Your task to perform on an android device: change alarm snooze length Image 0: 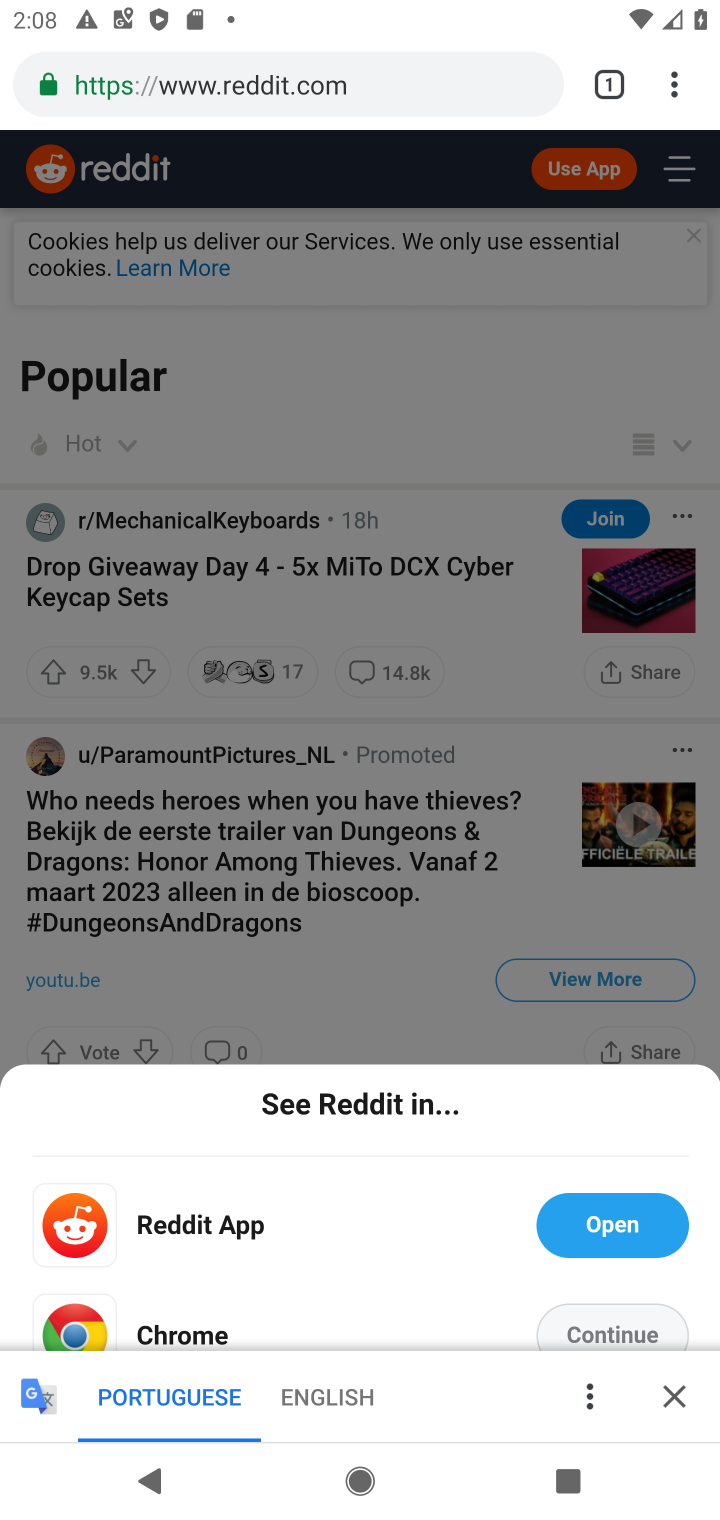
Step 0: press home button
Your task to perform on an android device: change alarm snooze length Image 1: 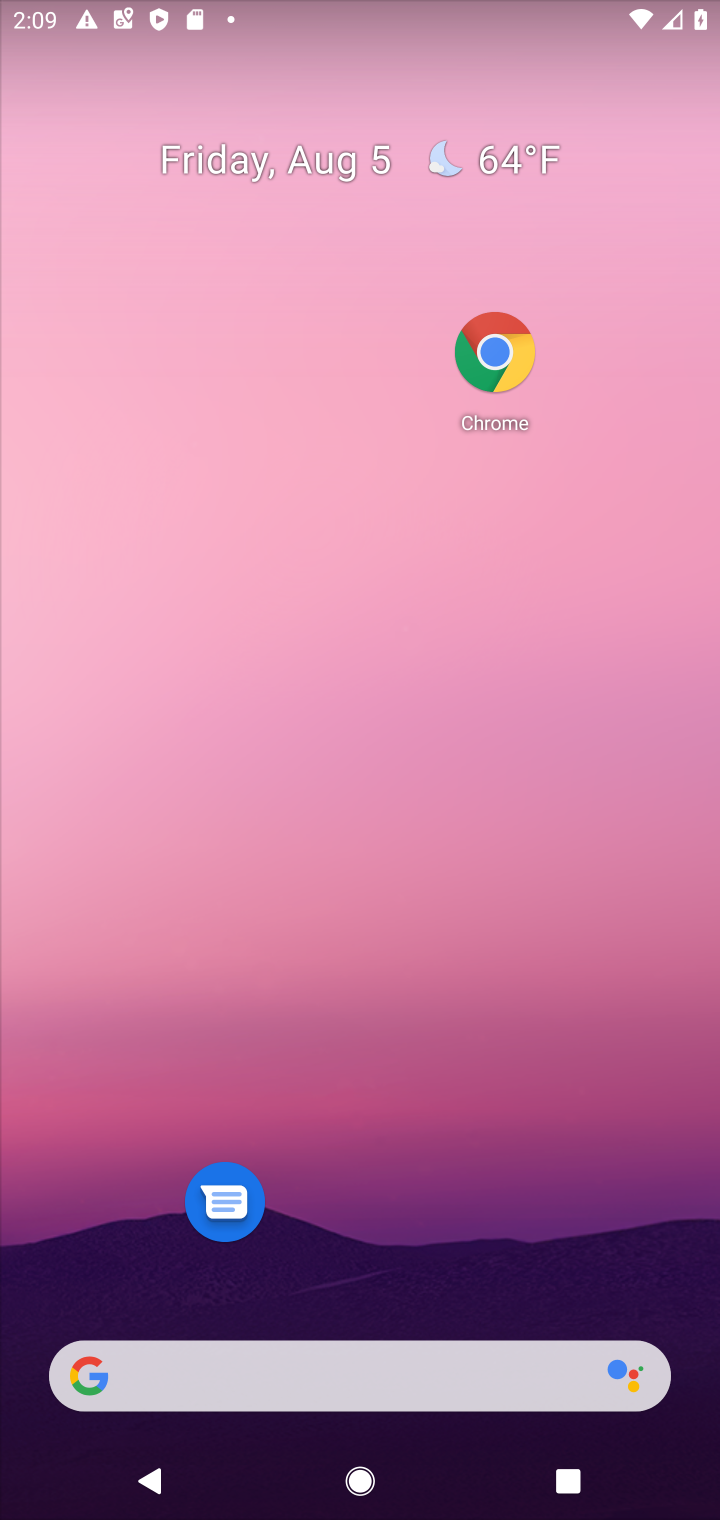
Step 1: drag from (554, 1241) to (558, 68)
Your task to perform on an android device: change alarm snooze length Image 2: 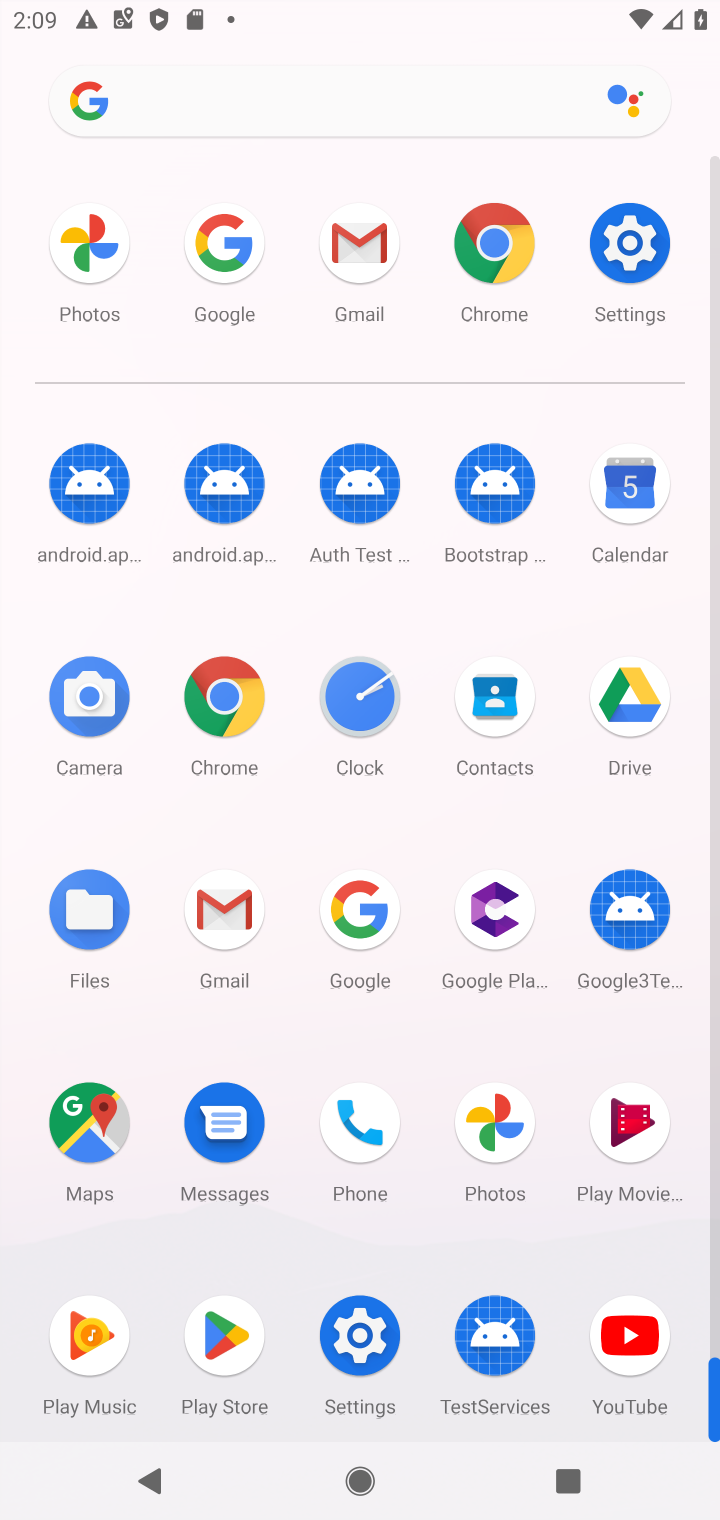
Step 2: click (364, 690)
Your task to perform on an android device: change alarm snooze length Image 3: 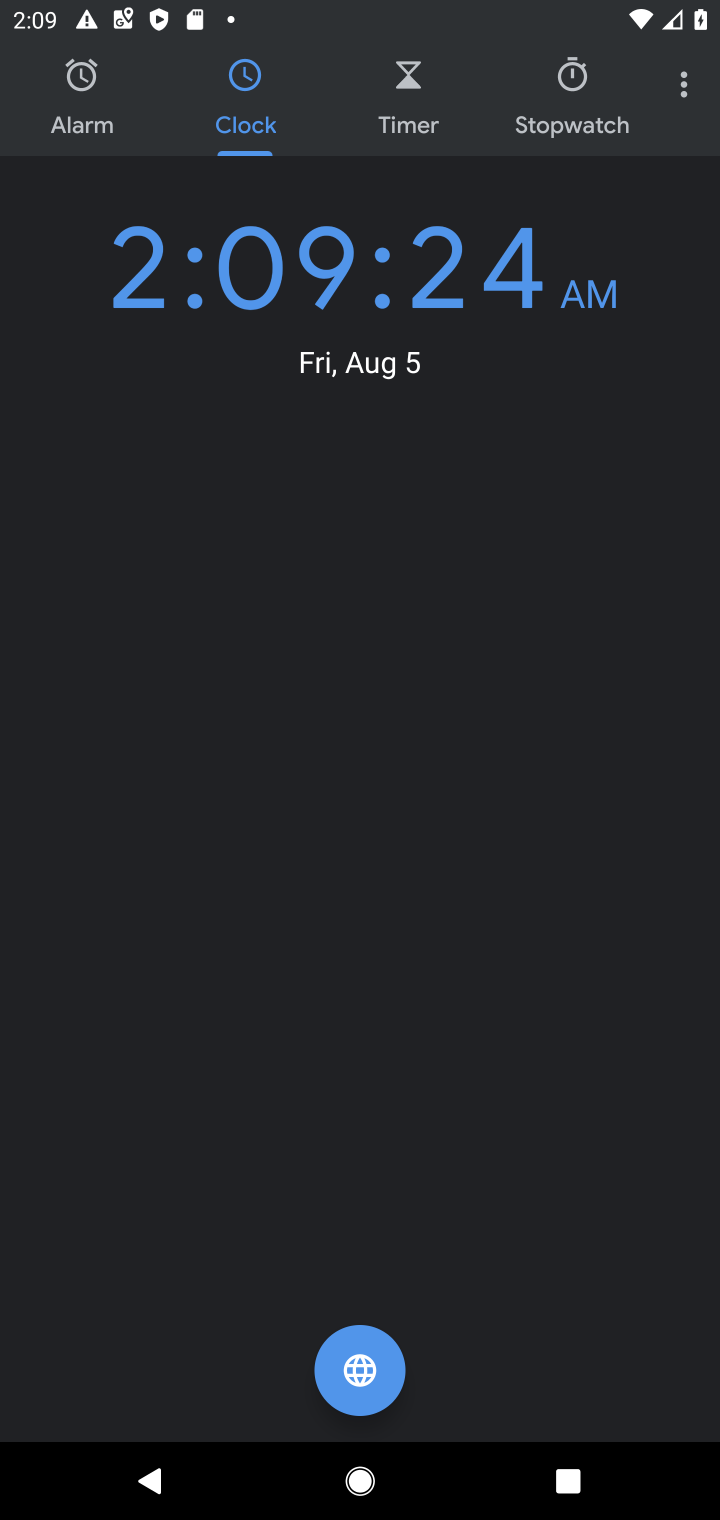
Step 3: click (679, 71)
Your task to perform on an android device: change alarm snooze length Image 4: 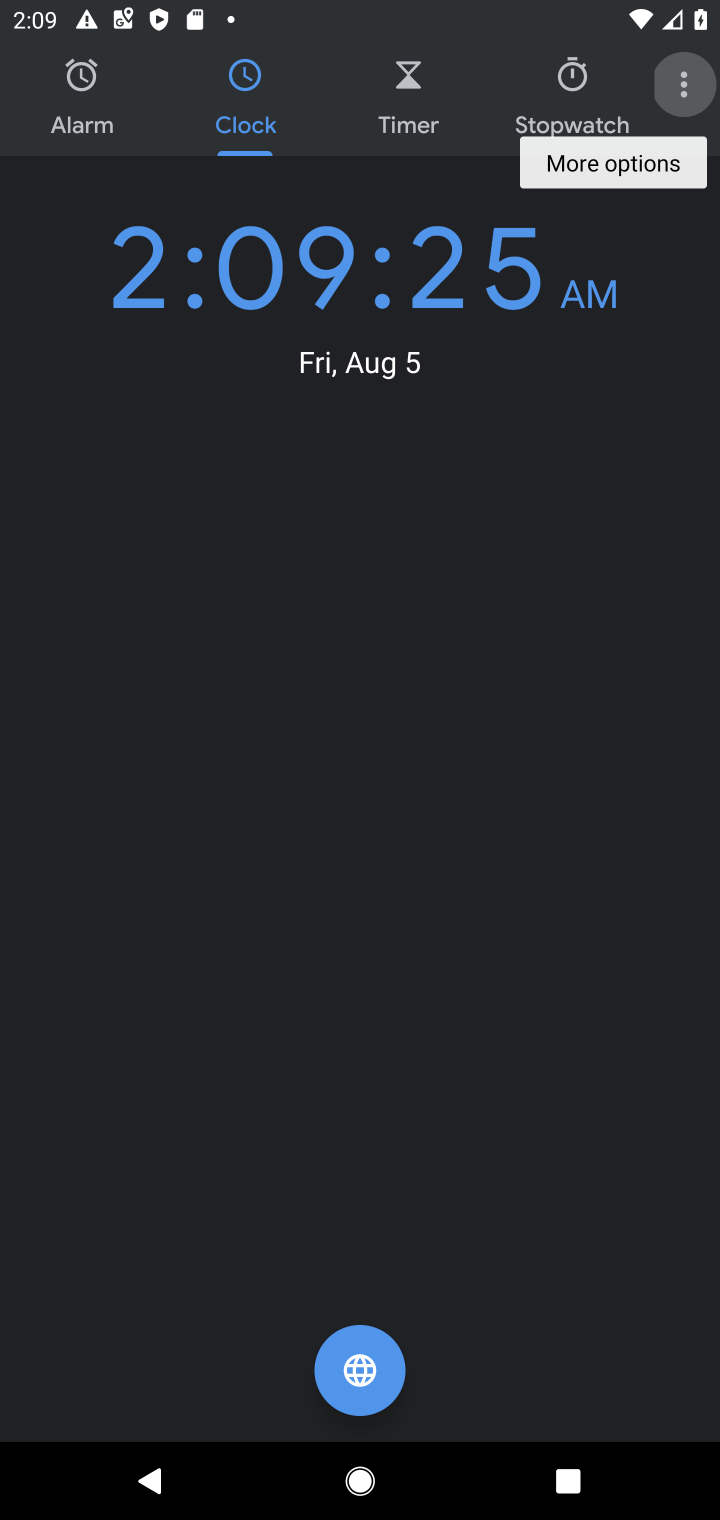
Step 4: click (679, 71)
Your task to perform on an android device: change alarm snooze length Image 5: 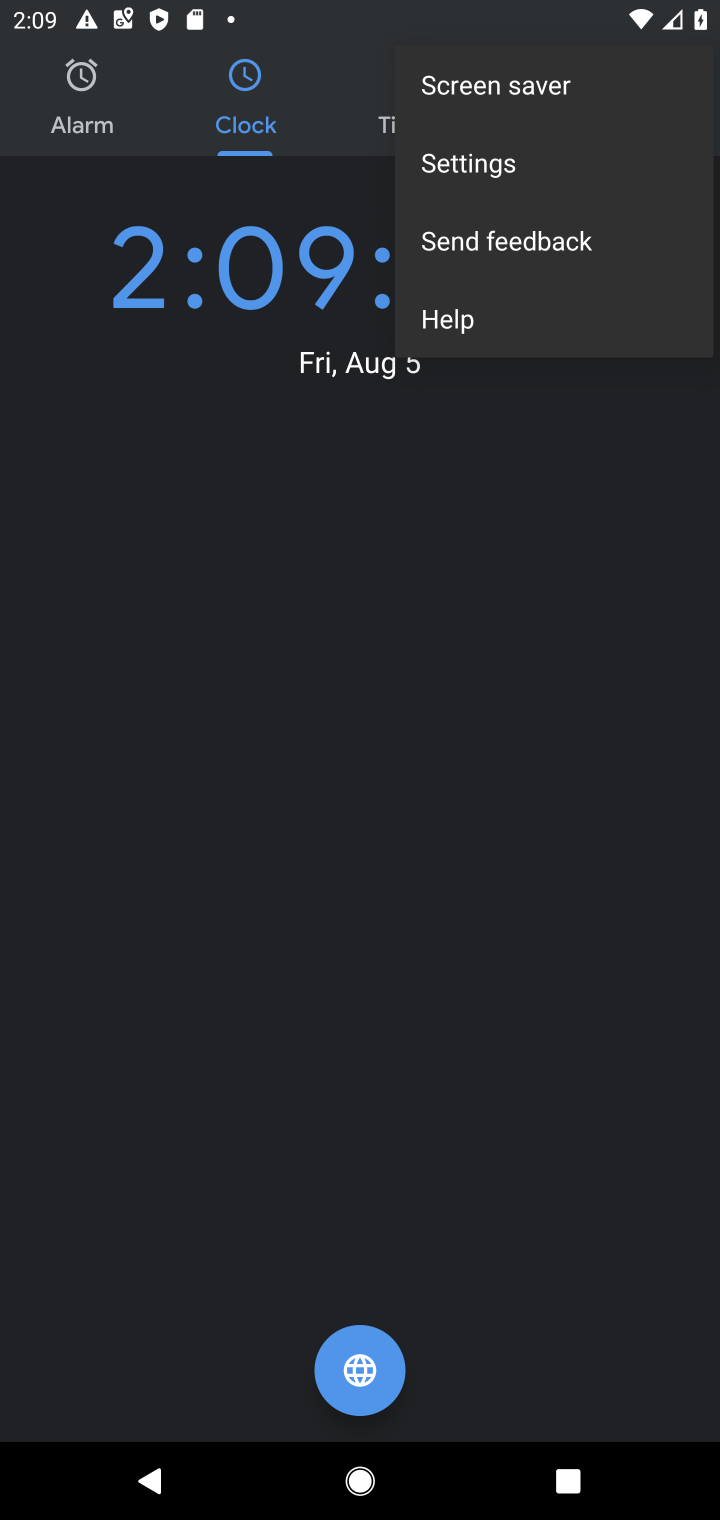
Step 5: click (485, 158)
Your task to perform on an android device: change alarm snooze length Image 6: 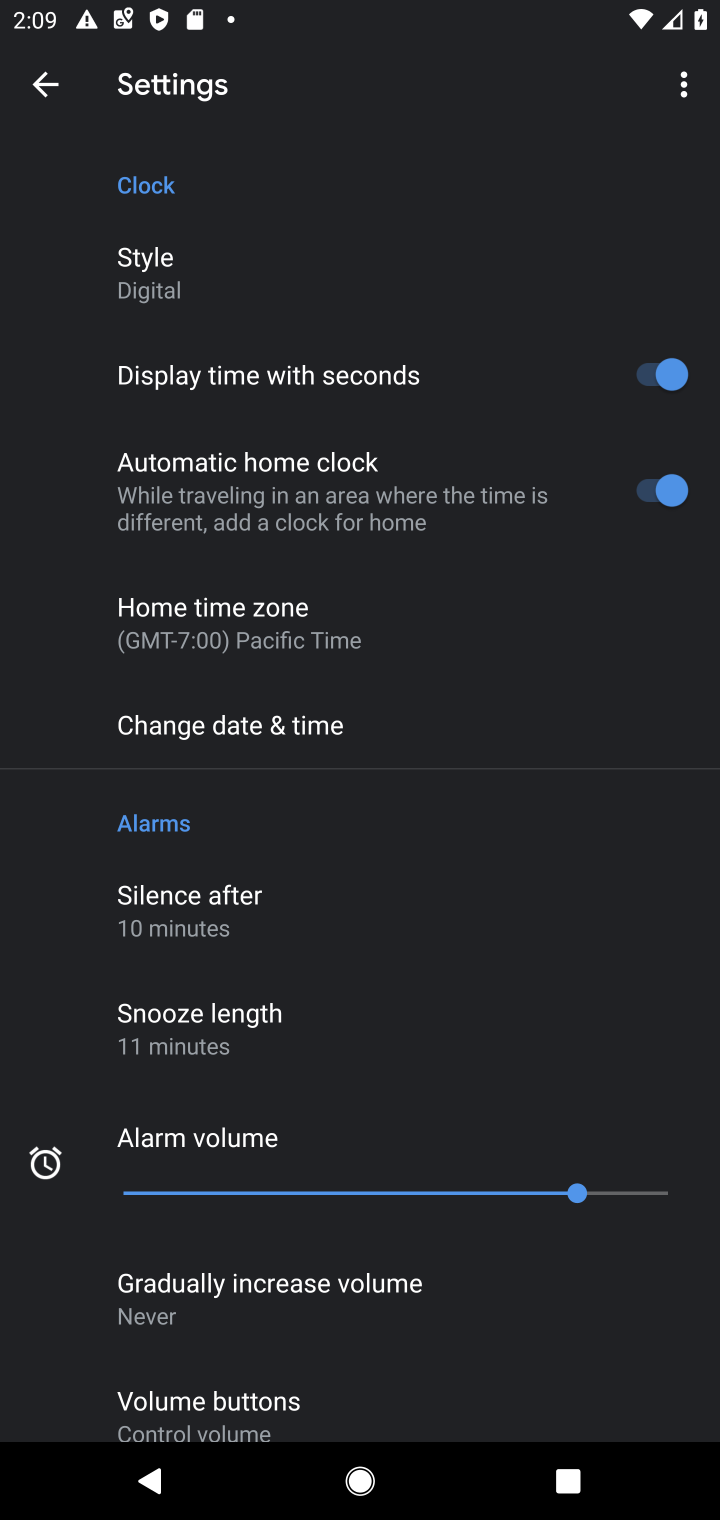
Step 6: click (267, 1023)
Your task to perform on an android device: change alarm snooze length Image 7: 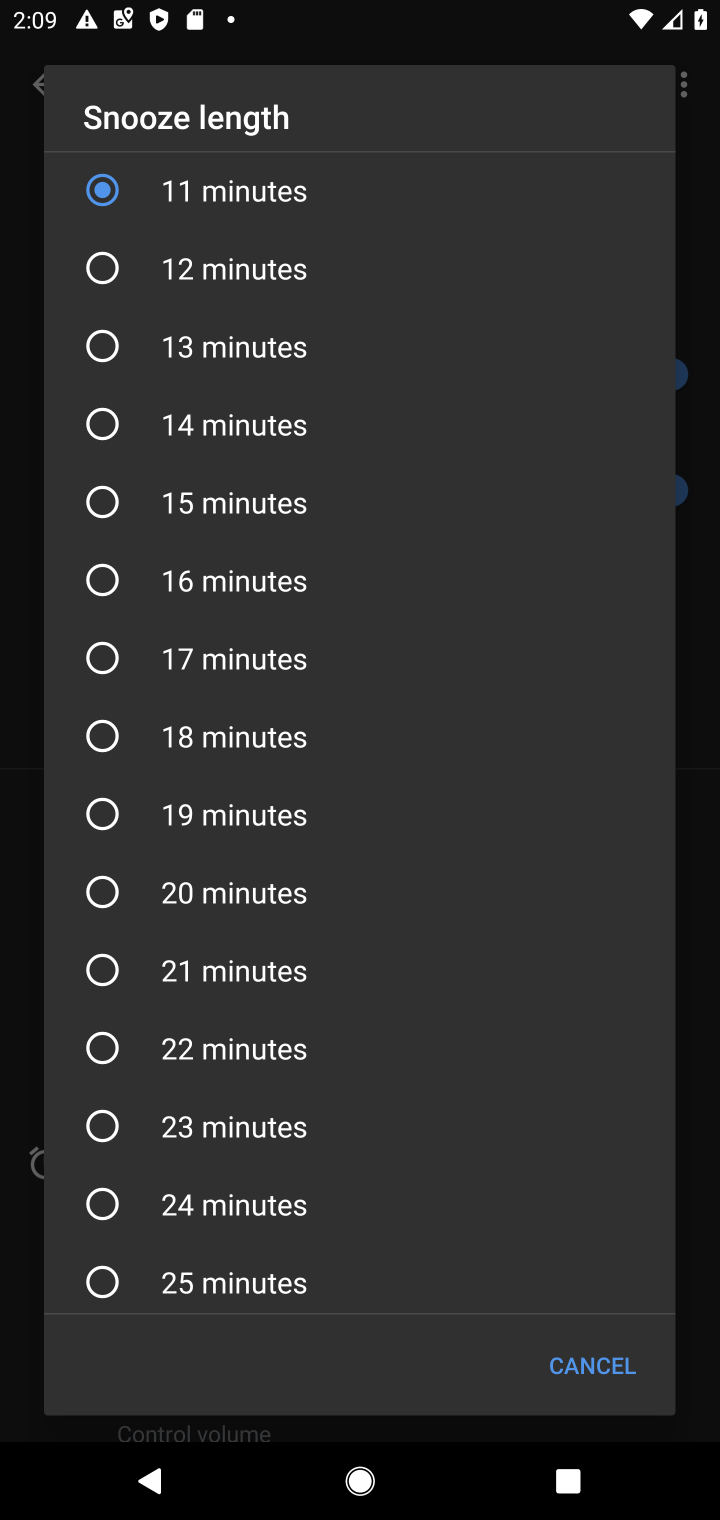
Step 7: click (182, 250)
Your task to perform on an android device: change alarm snooze length Image 8: 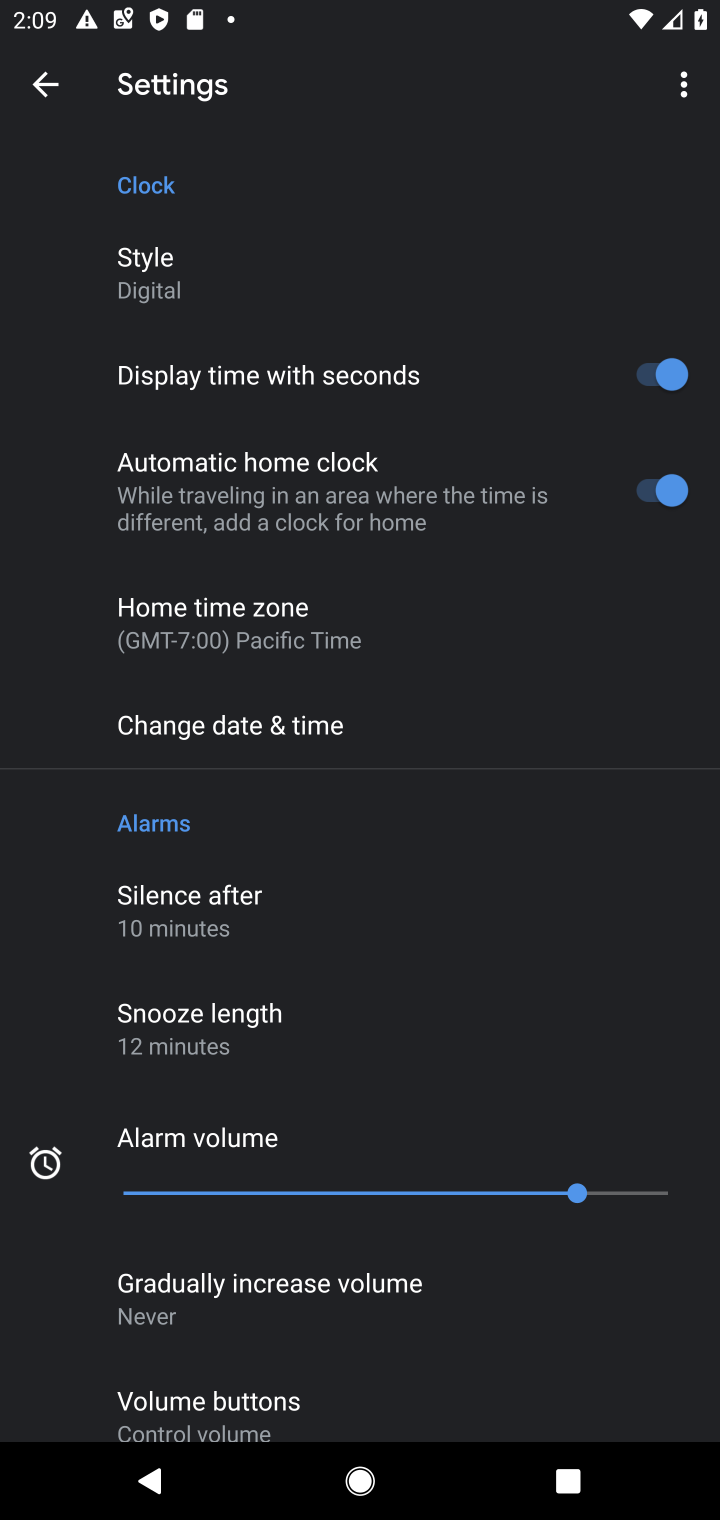
Step 8: task complete